Your task to perform on an android device: set default search engine in the chrome app Image 0: 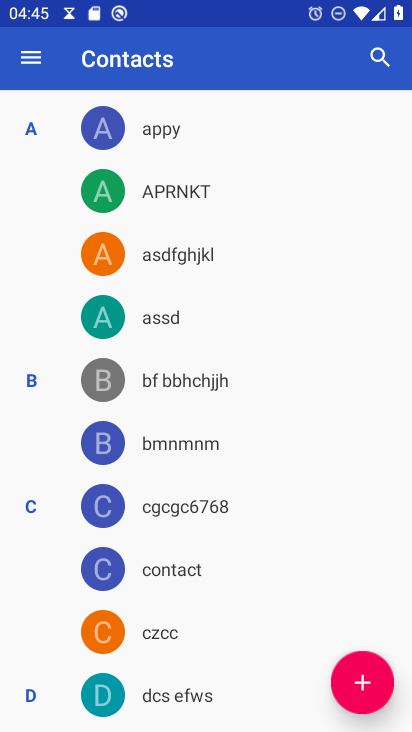
Step 0: press home button
Your task to perform on an android device: set default search engine in the chrome app Image 1: 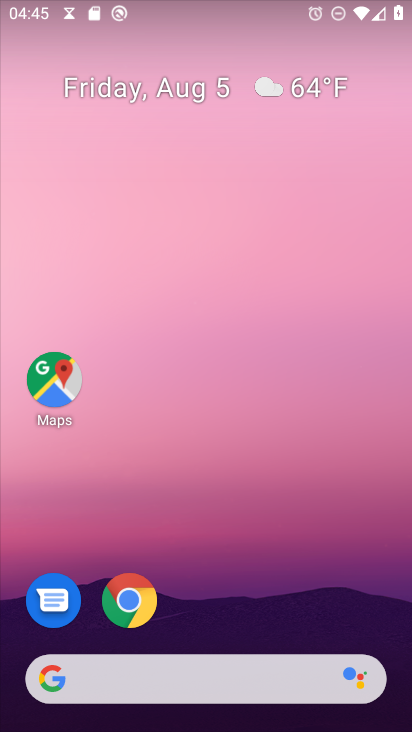
Step 1: click (134, 599)
Your task to perform on an android device: set default search engine in the chrome app Image 2: 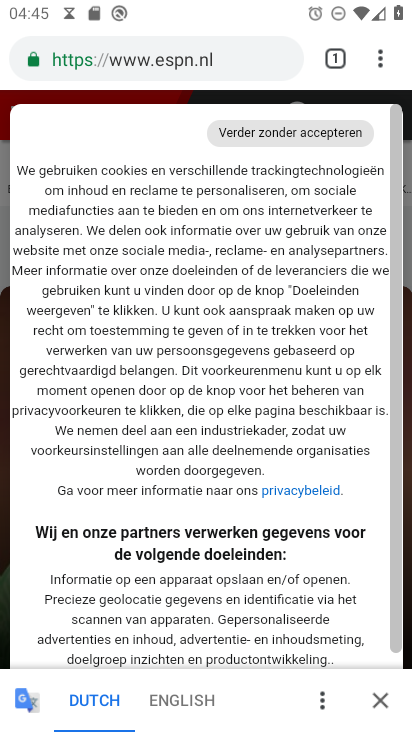
Step 2: click (381, 56)
Your task to perform on an android device: set default search engine in the chrome app Image 3: 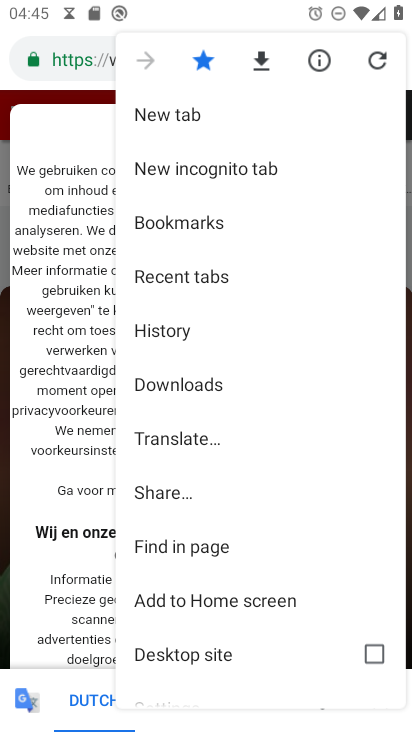
Step 3: drag from (217, 483) to (275, 386)
Your task to perform on an android device: set default search engine in the chrome app Image 4: 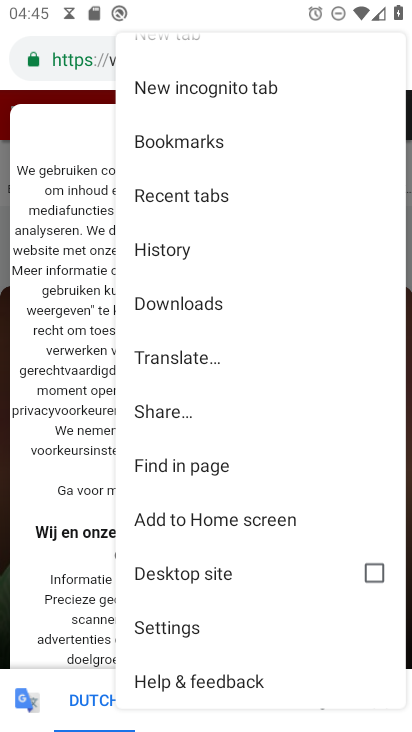
Step 4: click (180, 627)
Your task to perform on an android device: set default search engine in the chrome app Image 5: 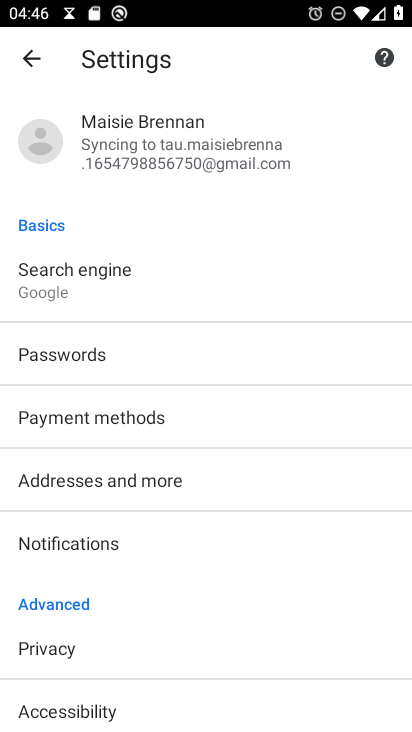
Step 5: click (84, 275)
Your task to perform on an android device: set default search engine in the chrome app Image 6: 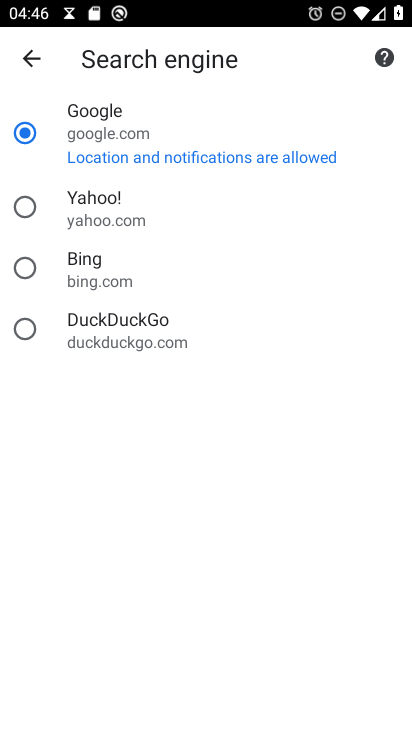
Step 6: click (35, 129)
Your task to perform on an android device: set default search engine in the chrome app Image 7: 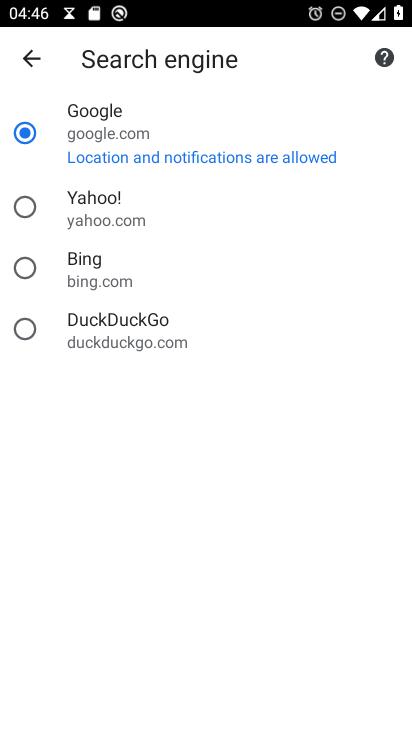
Step 7: task complete